Your task to perform on an android device: star an email in the gmail app Image 0: 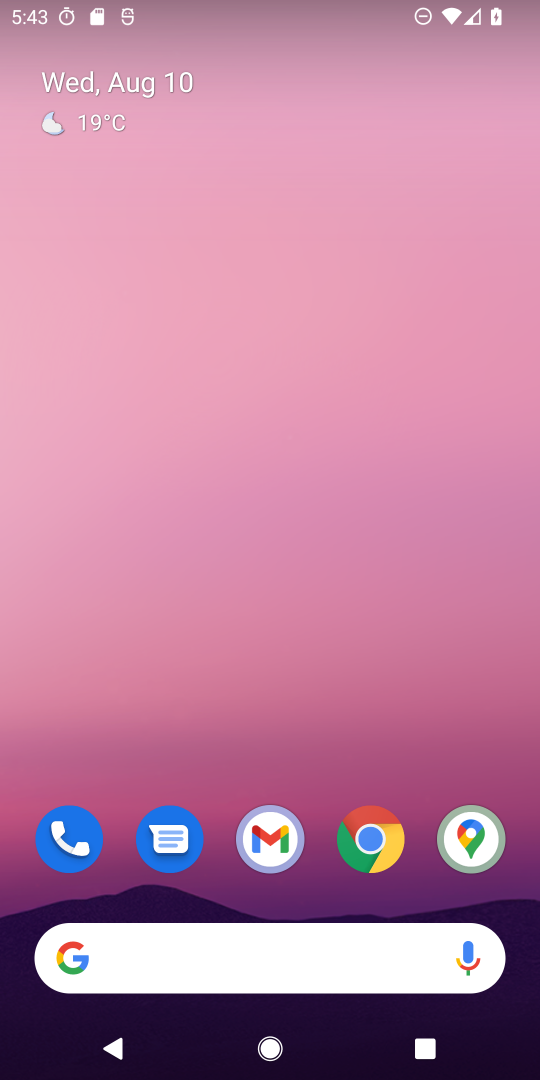
Step 0: click (280, 838)
Your task to perform on an android device: star an email in the gmail app Image 1: 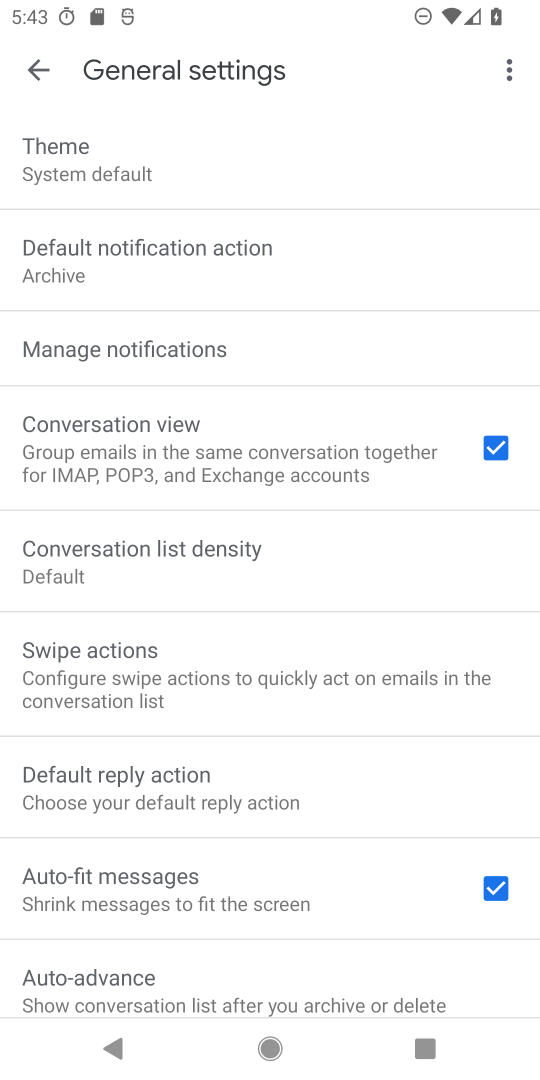
Step 1: click (31, 67)
Your task to perform on an android device: star an email in the gmail app Image 2: 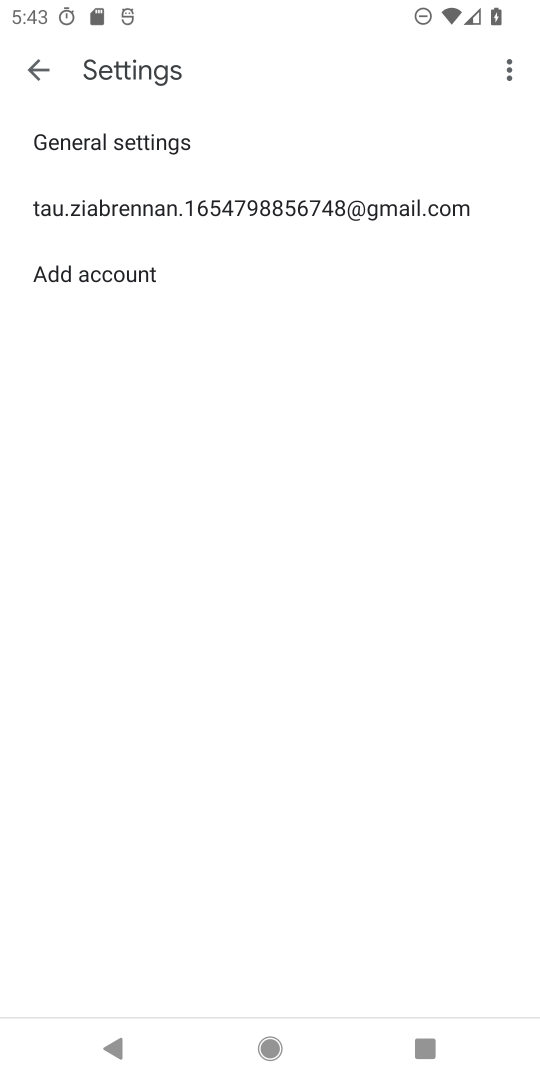
Step 2: click (31, 67)
Your task to perform on an android device: star an email in the gmail app Image 3: 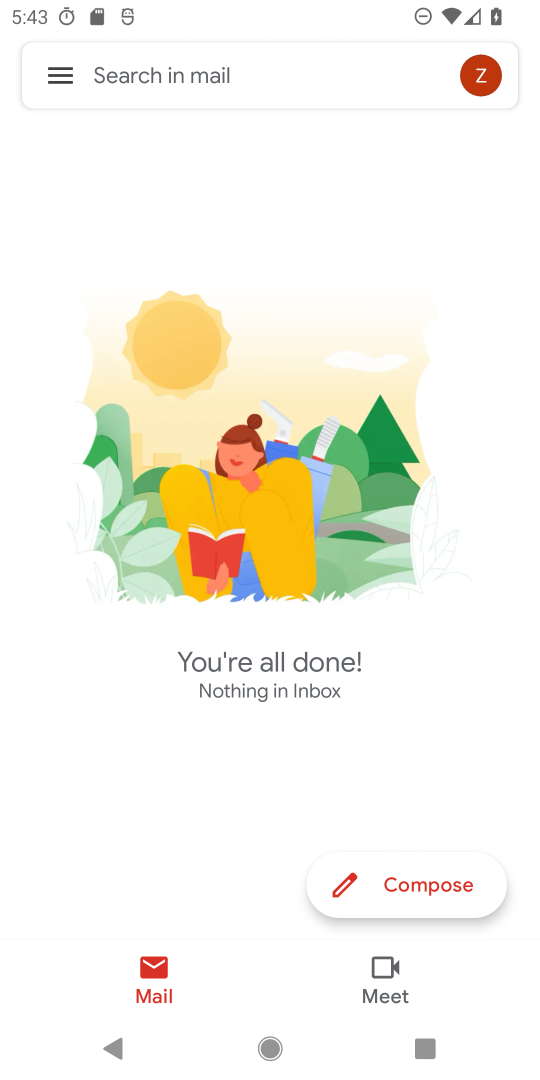
Step 3: click (55, 73)
Your task to perform on an android device: star an email in the gmail app Image 4: 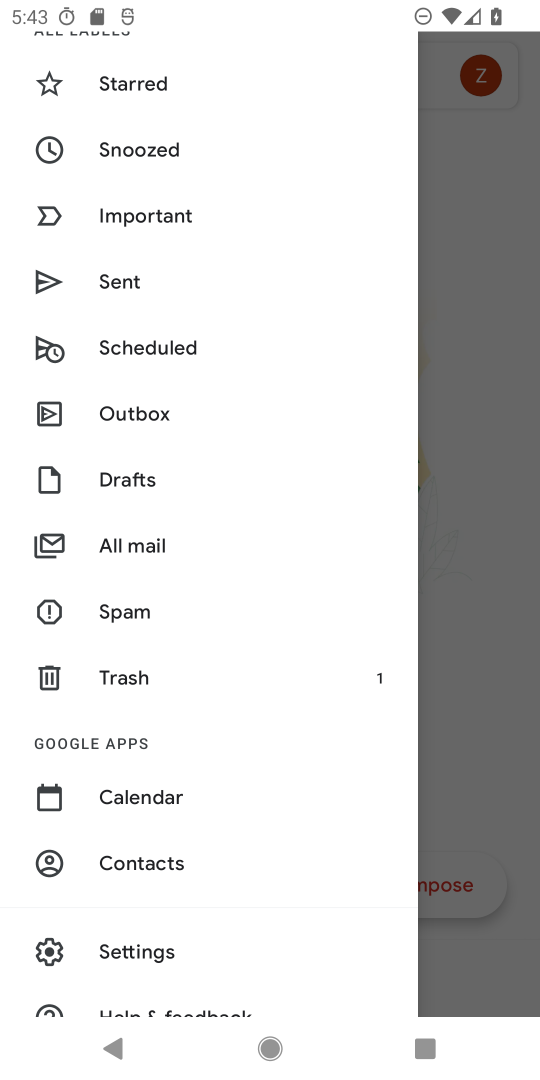
Step 4: drag from (284, 90) to (320, 477)
Your task to perform on an android device: star an email in the gmail app Image 5: 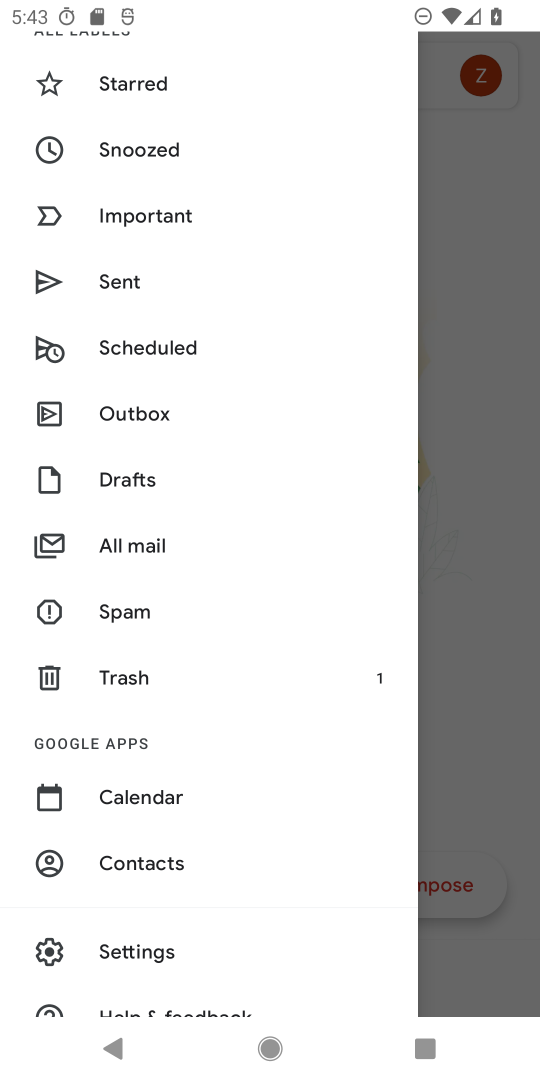
Step 5: click (122, 79)
Your task to perform on an android device: star an email in the gmail app Image 6: 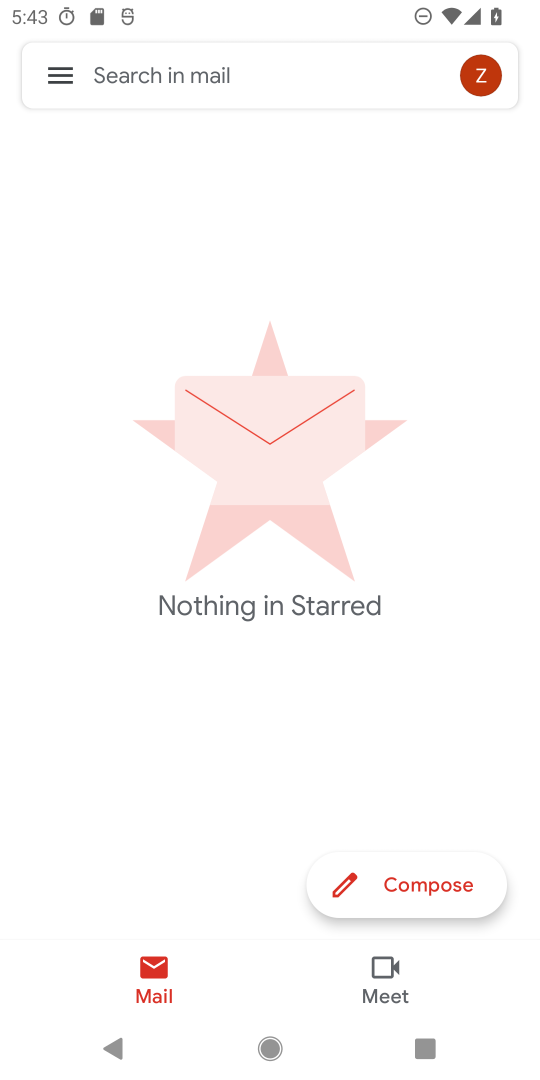
Step 6: task complete